Your task to perform on an android device: When is my next meeting? Image 0: 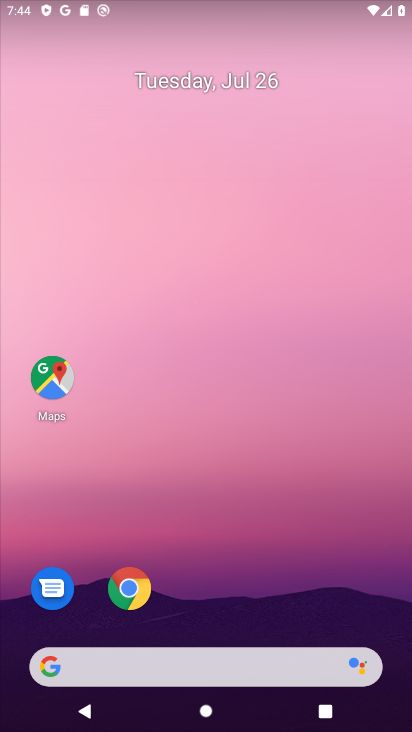
Step 0: drag from (199, 620) to (355, 69)
Your task to perform on an android device: When is my next meeting? Image 1: 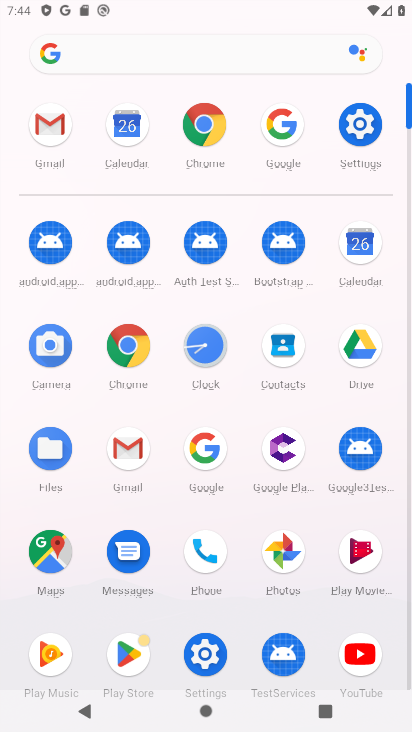
Step 1: click (352, 256)
Your task to perform on an android device: When is my next meeting? Image 2: 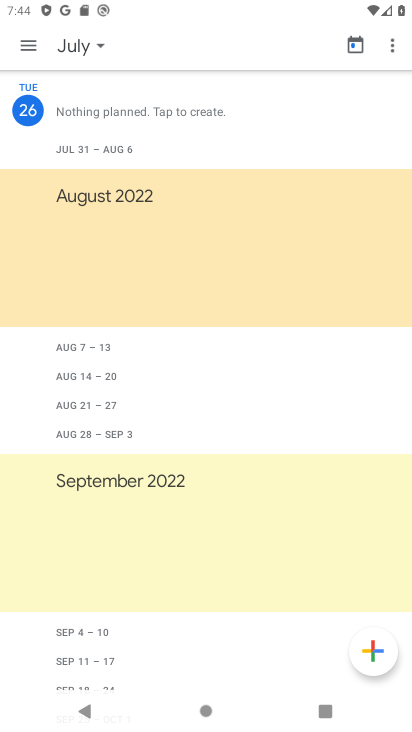
Step 2: click (30, 36)
Your task to perform on an android device: When is my next meeting? Image 3: 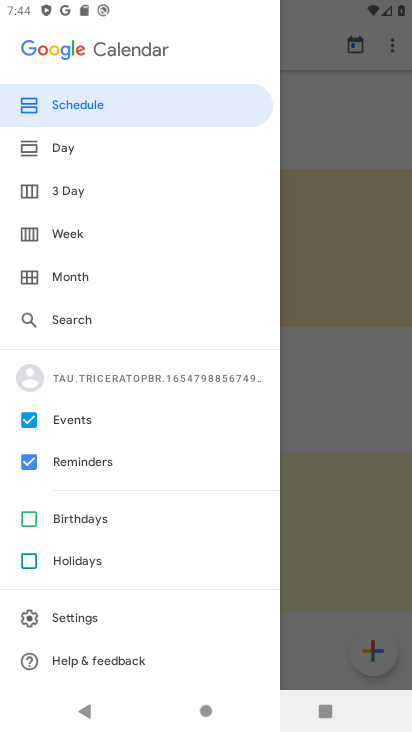
Step 3: click (334, 342)
Your task to perform on an android device: When is my next meeting? Image 4: 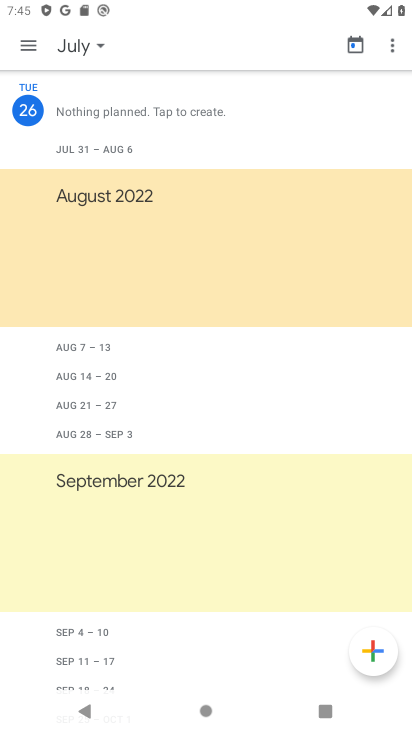
Step 4: task complete